Your task to perform on an android device: Toggle the flashlight Image 0: 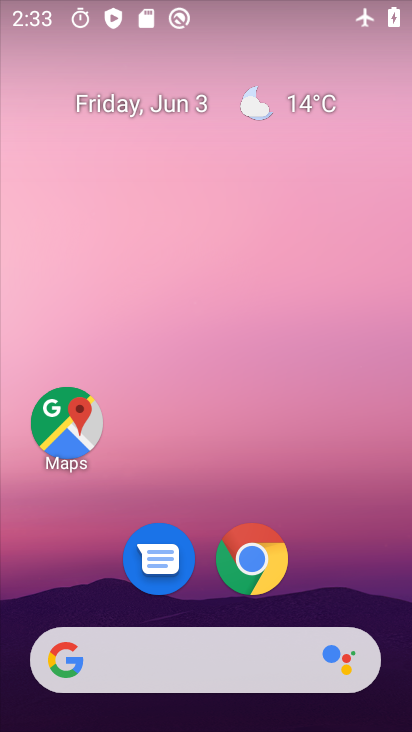
Step 0: drag from (206, 624) to (247, 0)
Your task to perform on an android device: Toggle the flashlight Image 1: 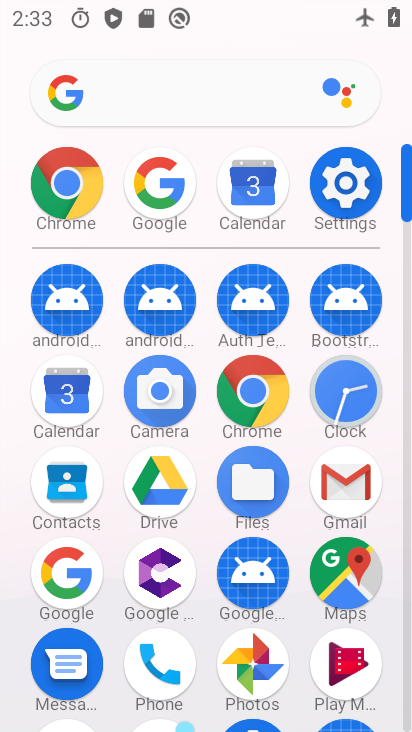
Step 1: click (355, 196)
Your task to perform on an android device: Toggle the flashlight Image 2: 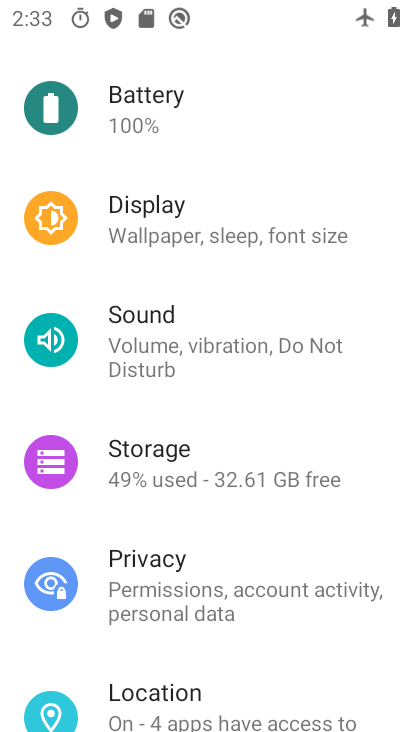
Step 2: task complete